Your task to perform on an android device: Search for a 1/2 in. x 1/2 in. x 24 in. 600 grit sander on Lowes.com Image 0: 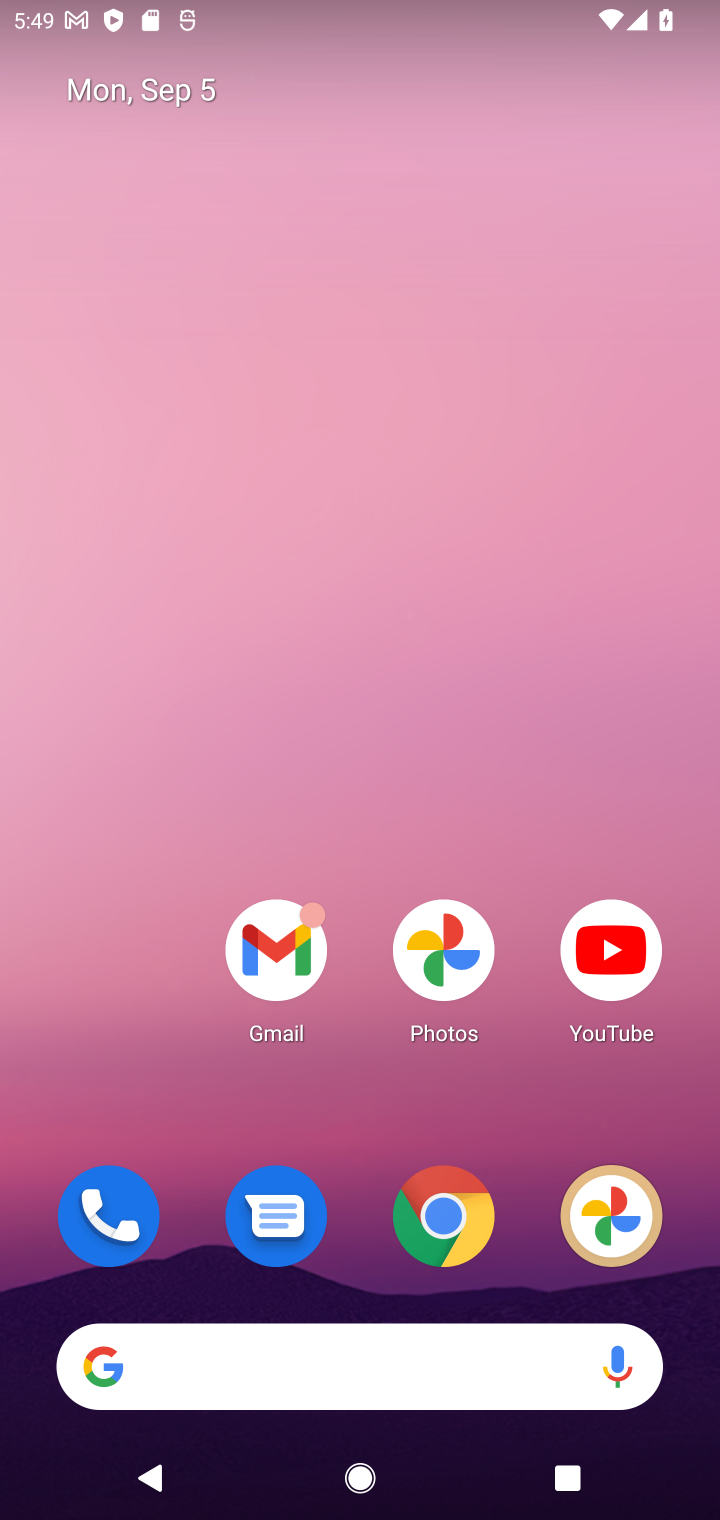
Step 0: click (460, 1233)
Your task to perform on an android device: Search for a 1/2 in. x 1/2 in. x 24 in. 600 grit sander on Lowes.com Image 1: 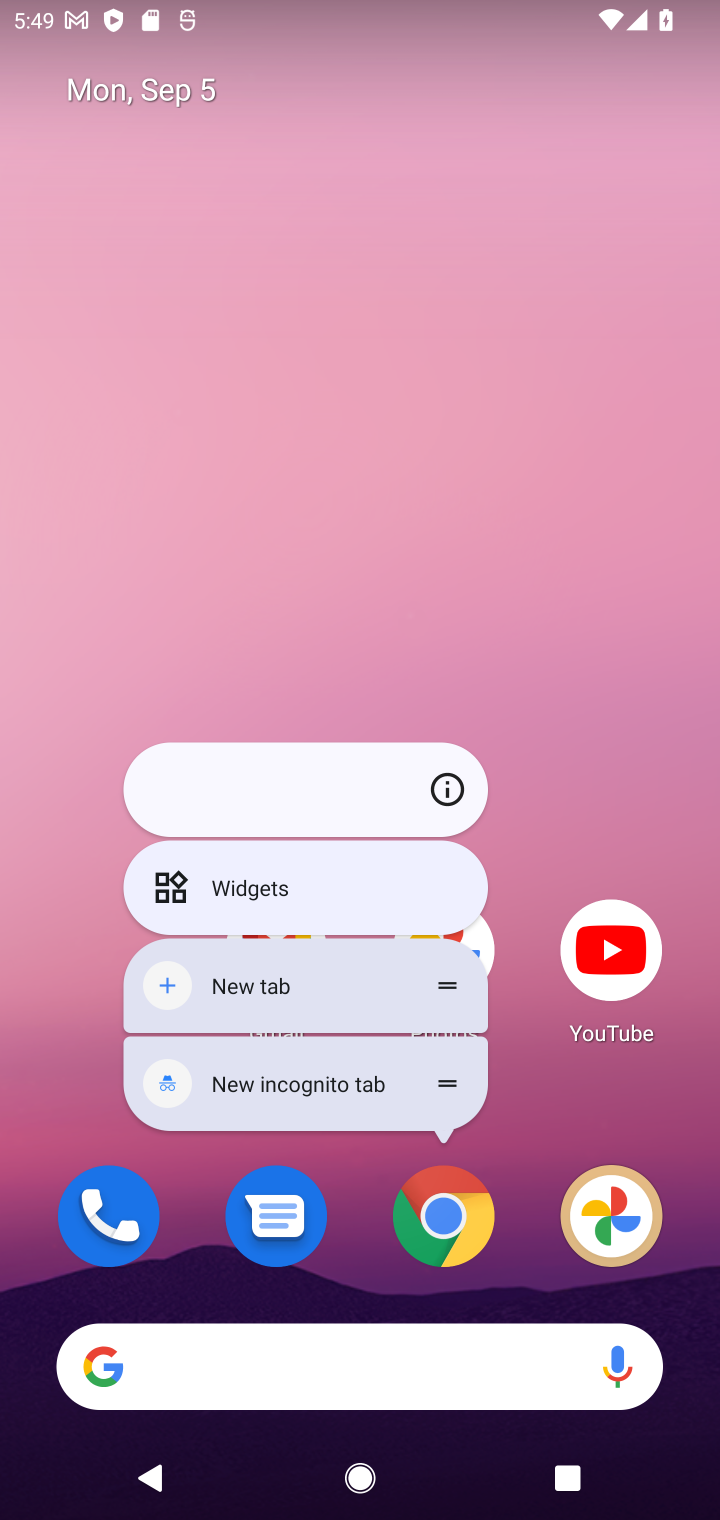
Step 1: click (449, 1232)
Your task to perform on an android device: Search for a 1/2 in. x 1/2 in. x 24 in. 600 grit sander on Lowes.com Image 2: 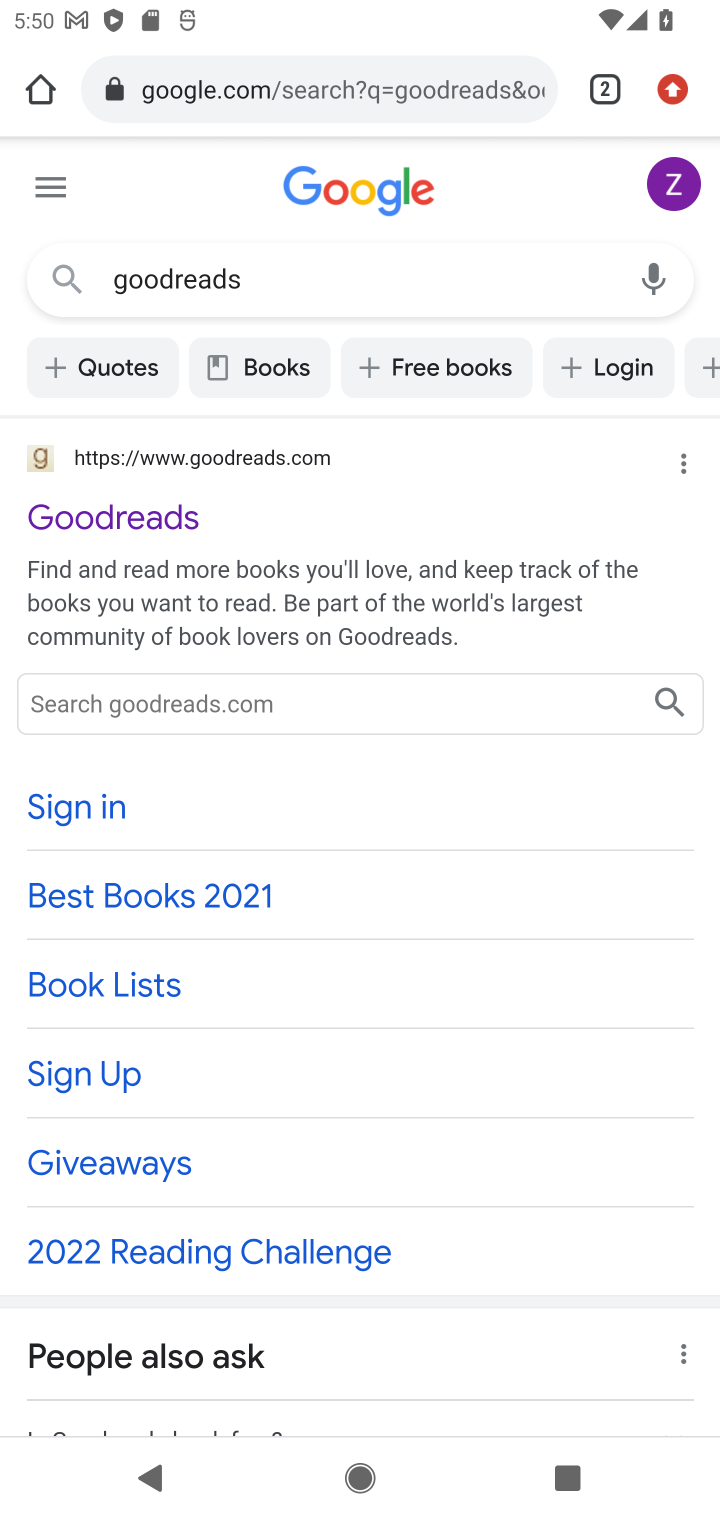
Step 2: click (381, 97)
Your task to perform on an android device: Search for a 1/2 in. x 1/2 in. x 24 in. 600 grit sander on Lowes.com Image 3: 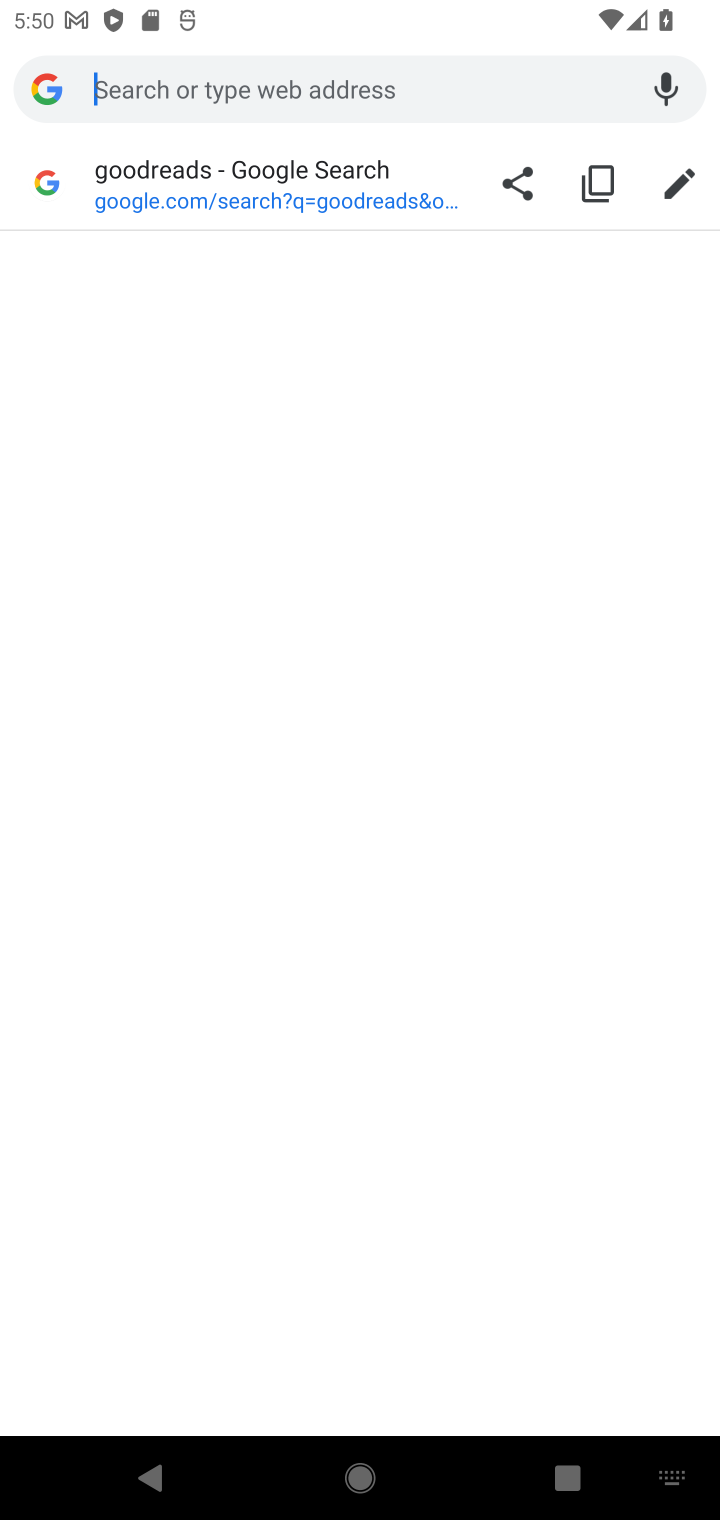
Step 3: type "Lowes.com"
Your task to perform on an android device: Search for a 1/2 in. x 1/2 in. x 24 in. 600 grit sander on Lowes.com Image 4: 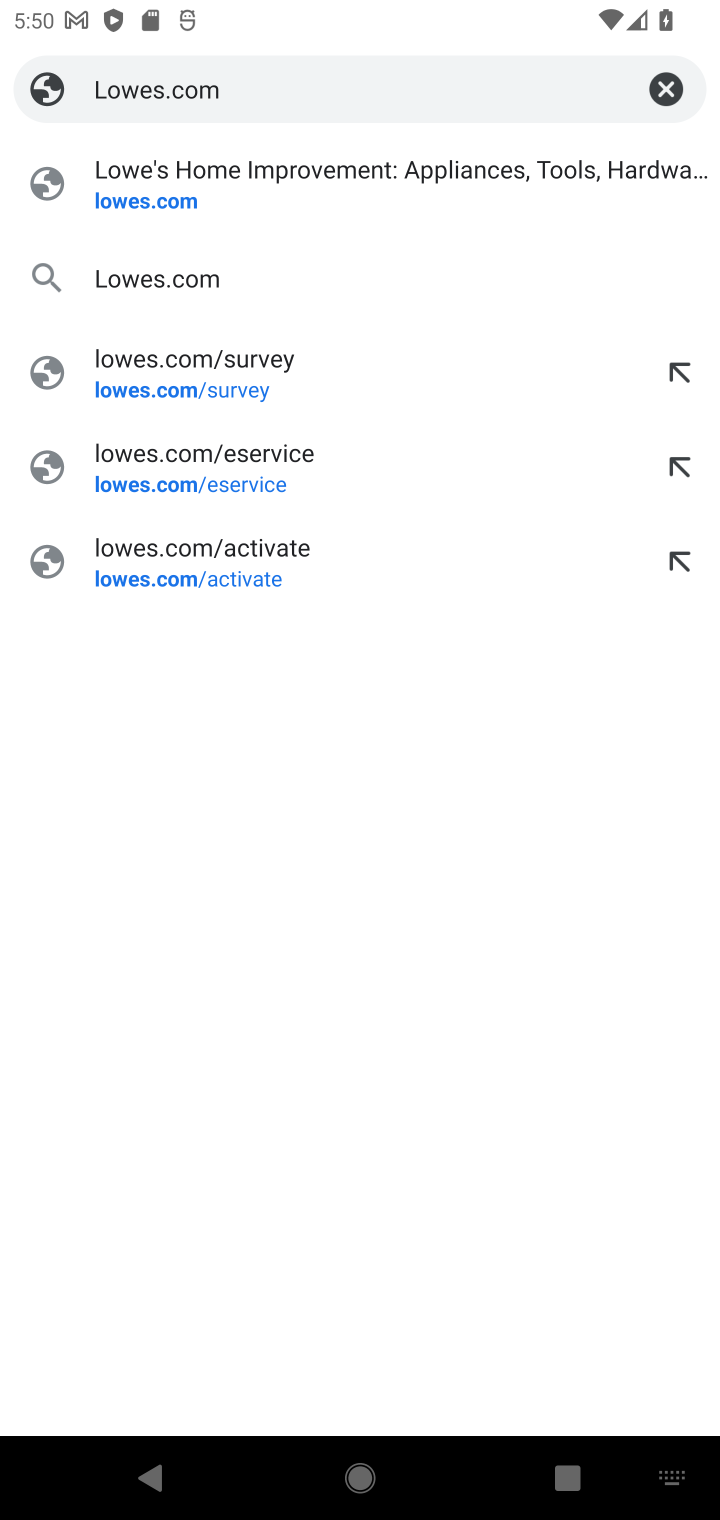
Step 4: click (275, 187)
Your task to perform on an android device: Search for a 1/2 in. x 1/2 in. x 24 in. 600 grit sander on Lowes.com Image 5: 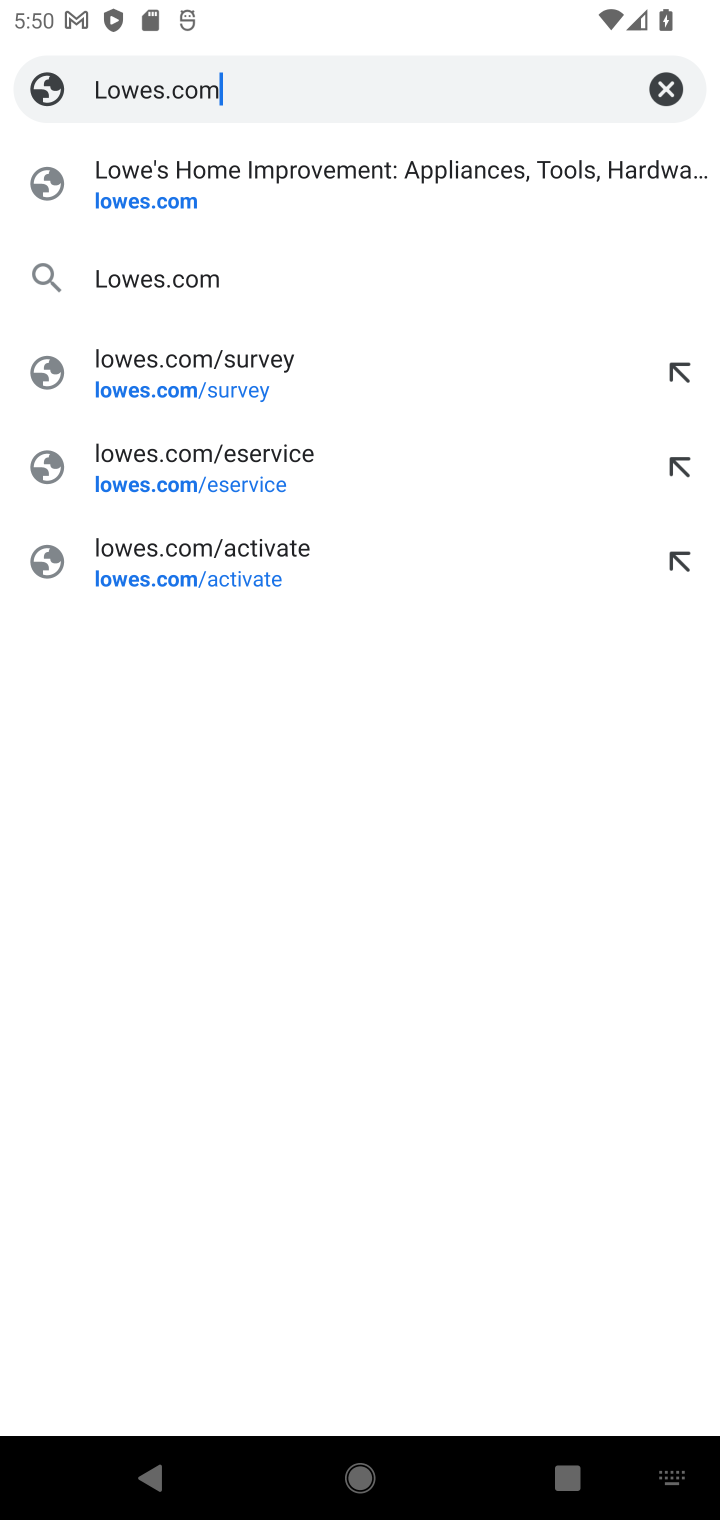
Step 5: click (171, 199)
Your task to perform on an android device: Search for a 1/2 in. x 1/2 in. x 24 in. 600 grit sander on Lowes.com Image 6: 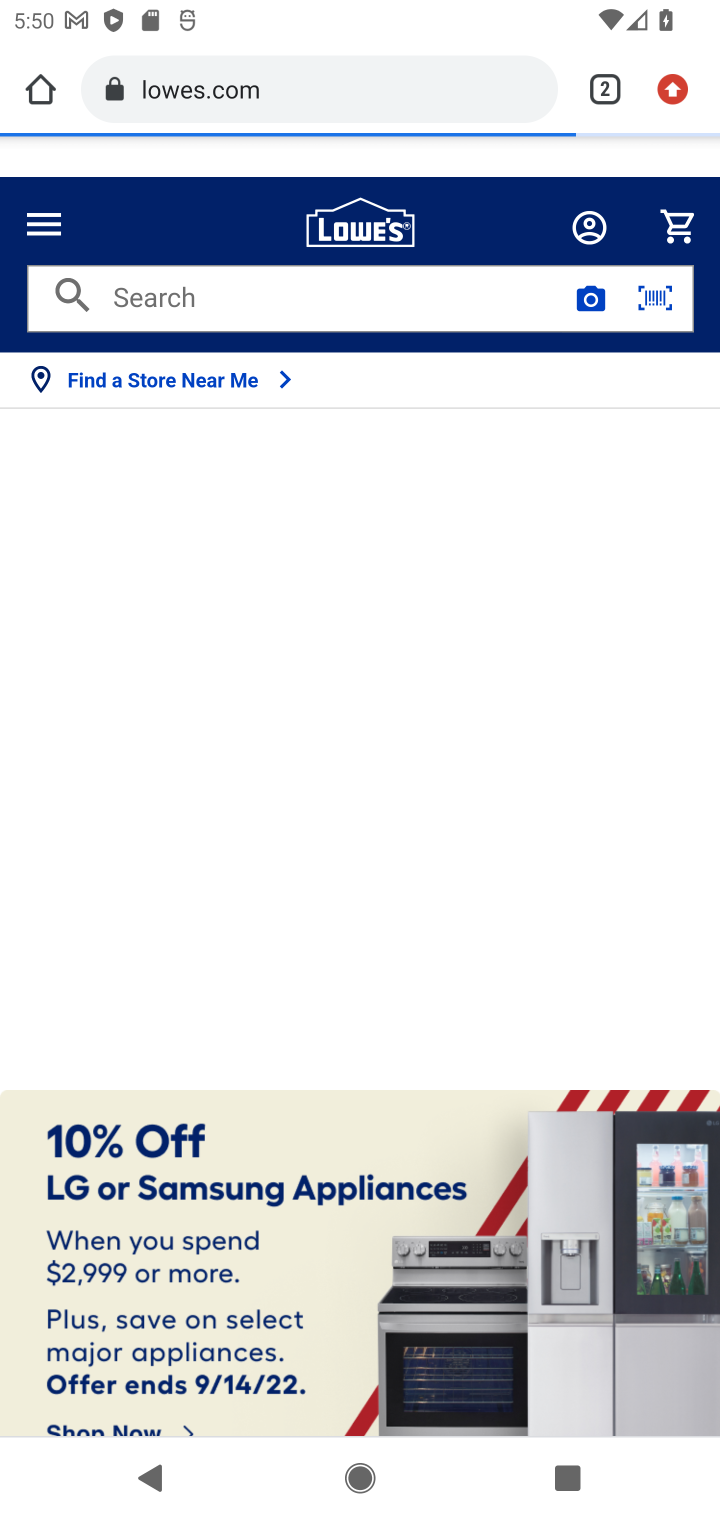
Step 6: click (271, 289)
Your task to perform on an android device: Search for a 1/2 in. x 1/2 in. x 24 in. 600 grit sander on Lowes.com Image 7: 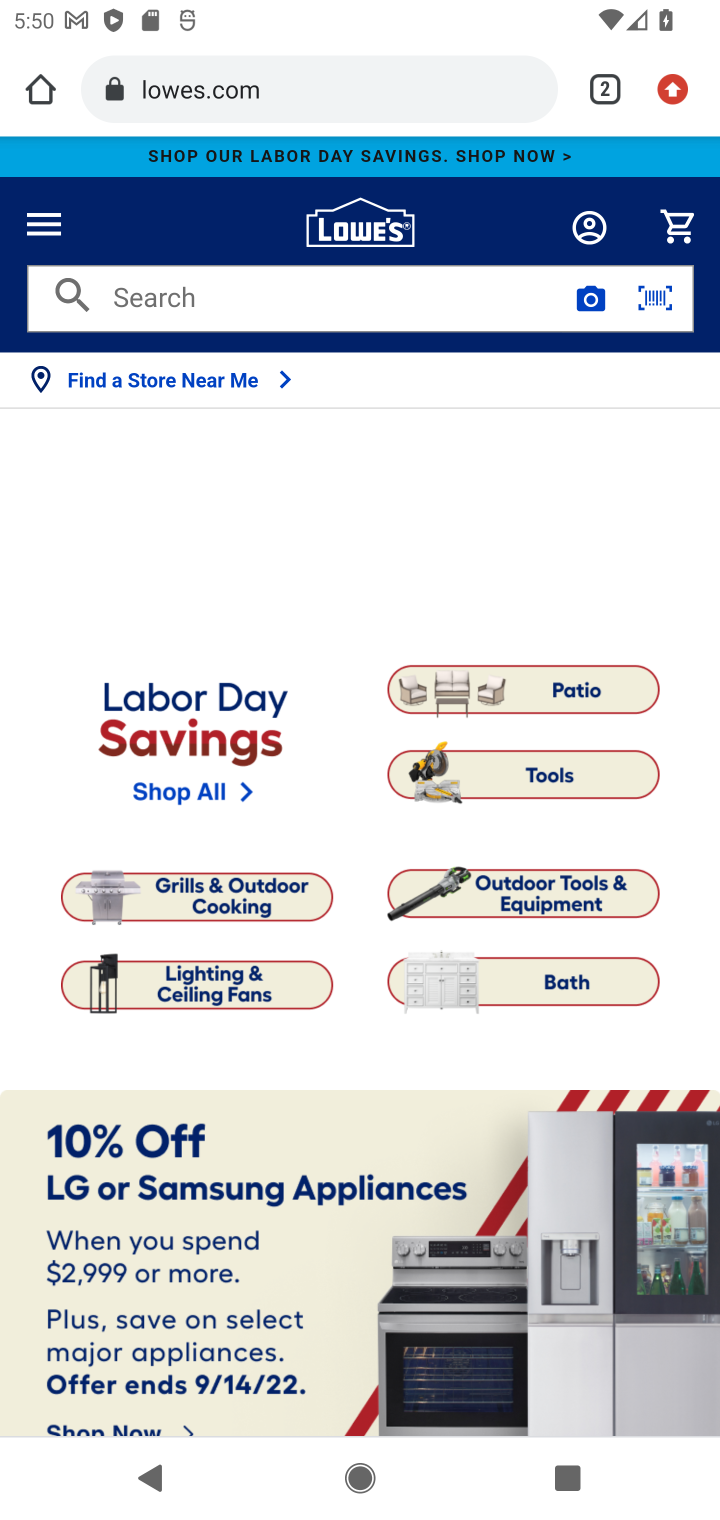
Step 7: click (271, 289)
Your task to perform on an android device: Search for a 1/2 in. x 1/2 in. x 24 in. 600 grit sander on Lowes.com Image 8: 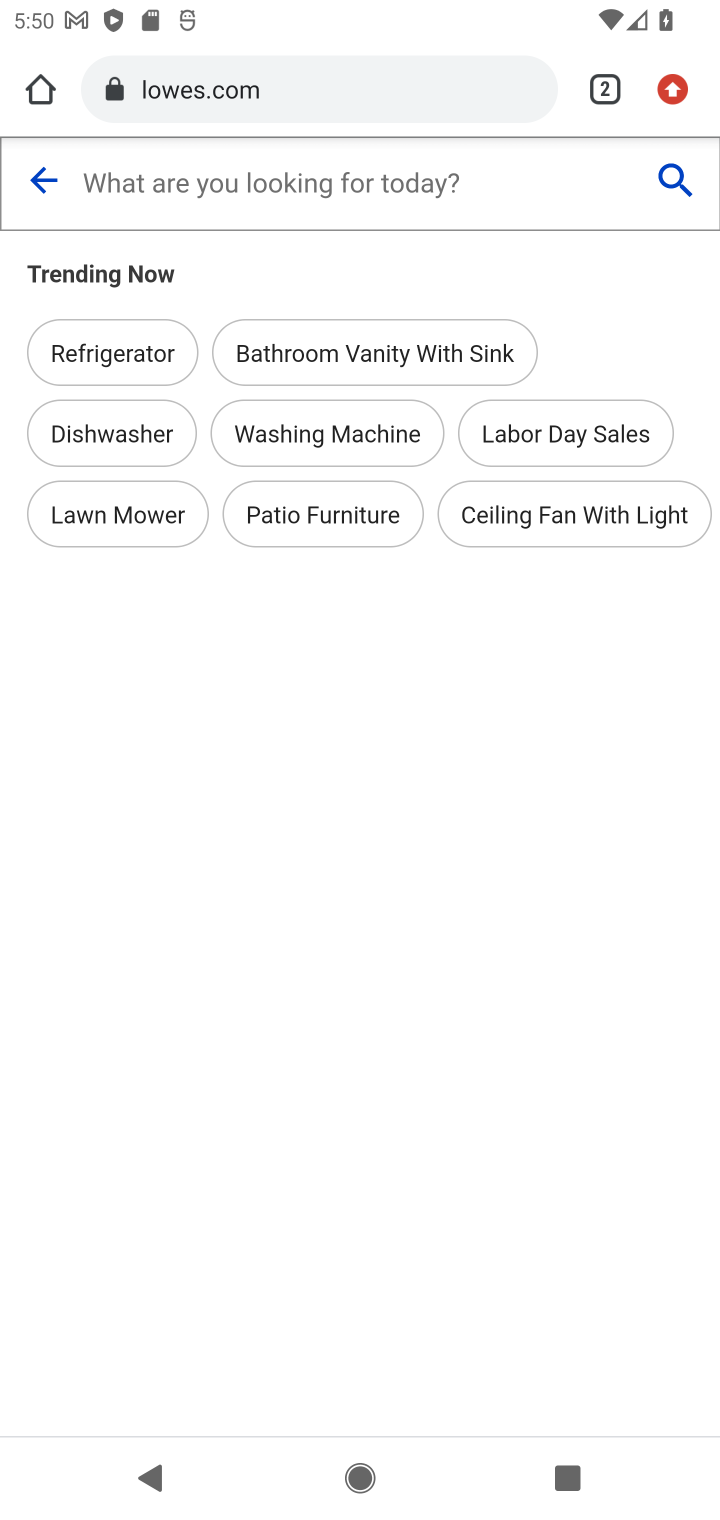
Step 8: click (413, 178)
Your task to perform on an android device: Search for a 1/2 in. x 1/2 in. x 24 in. 600 grit sander on Lowes.com Image 9: 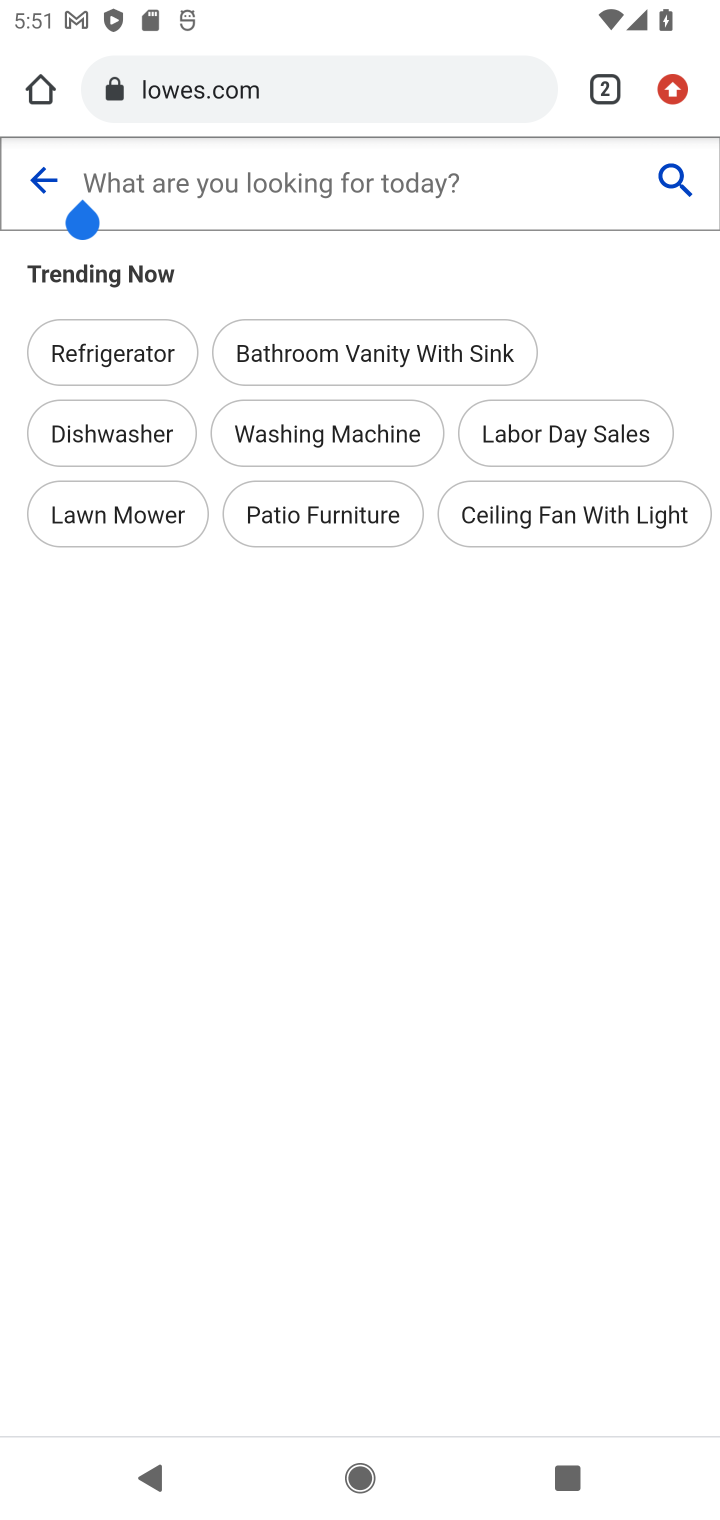
Step 9: type "1/2in. x 1/2 in.x 24 in.600"
Your task to perform on an android device: Search for a 1/2 in. x 1/2 in. x 24 in. 600 grit sander on Lowes.com Image 10: 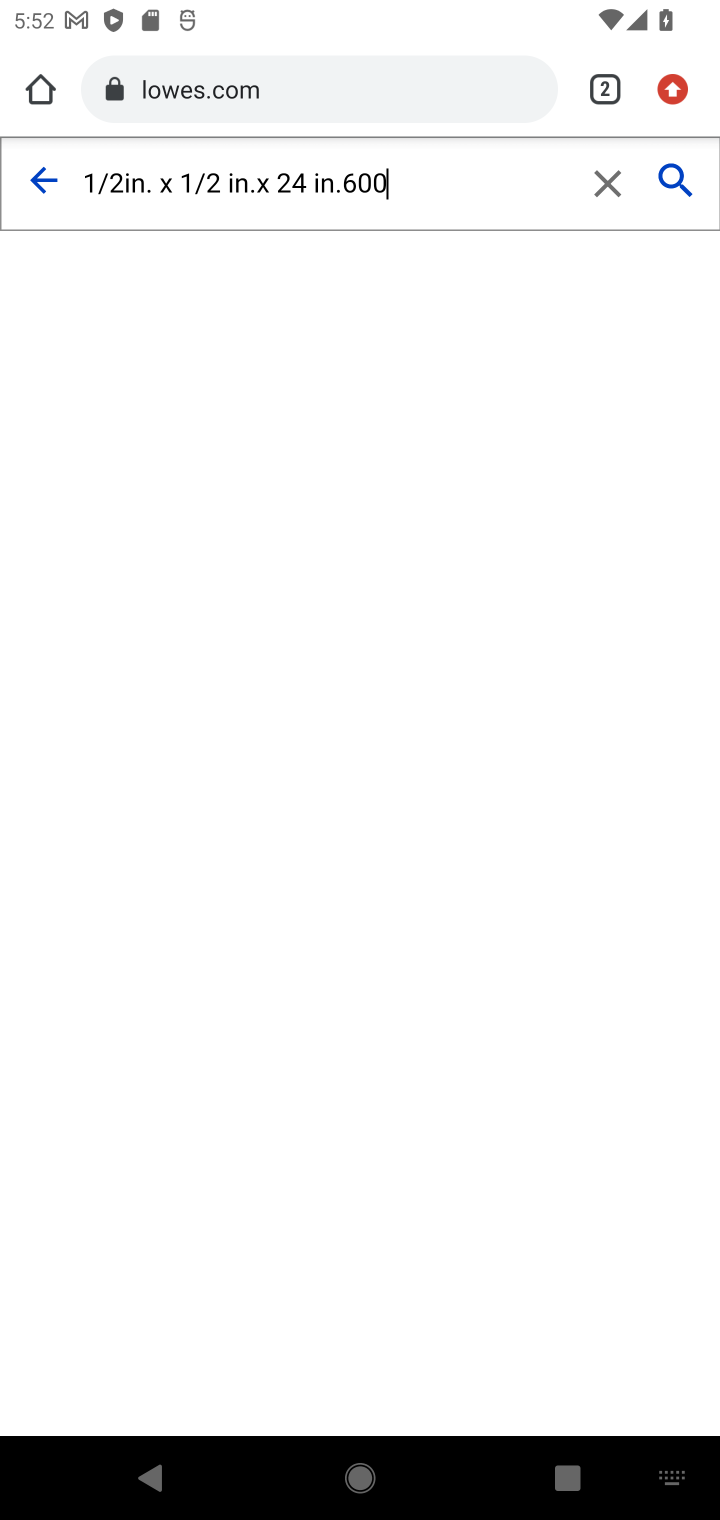
Step 10: click (665, 176)
Your task to perform on an android device: Search for a 1/2 in. x 1/2 in. x 24 in. 600 grit sander on Lowes.com Image 11: 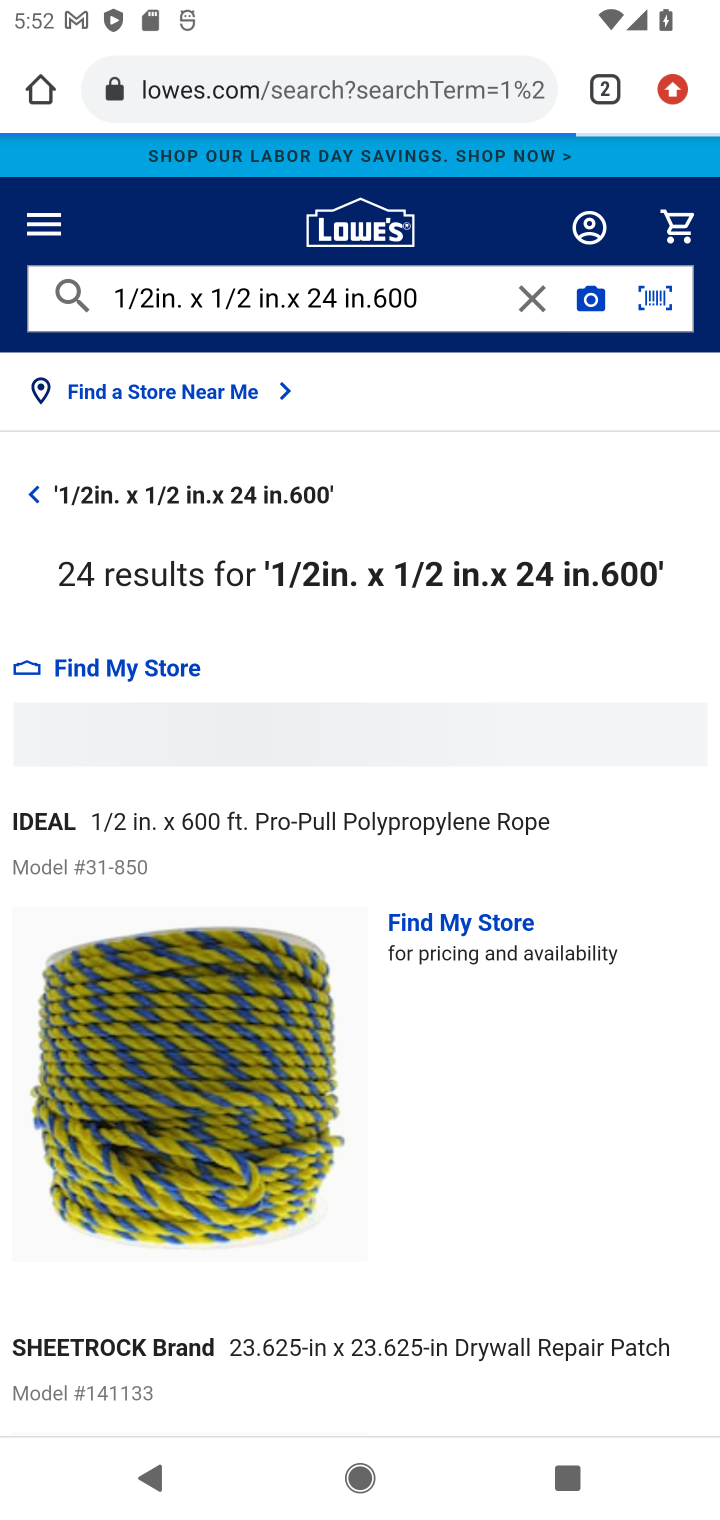
Step 11: task complete